Your task to perform on an android device: move a message to another label in the gmail app Image 0: 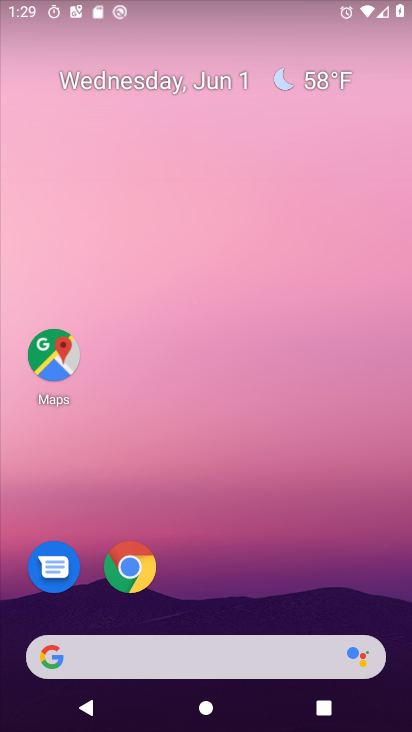
Step 0: drag from (227, 486) to (343, 115)
Your task to perform on an android device: move a message to another label in the gmail app Image 1: 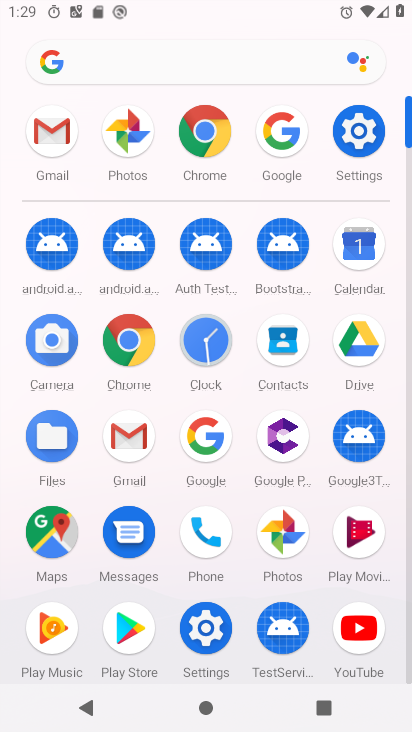
Step 1: click (132, 447)
Your task to perform on an android device: move a message to another label in the gmail app Image 2: 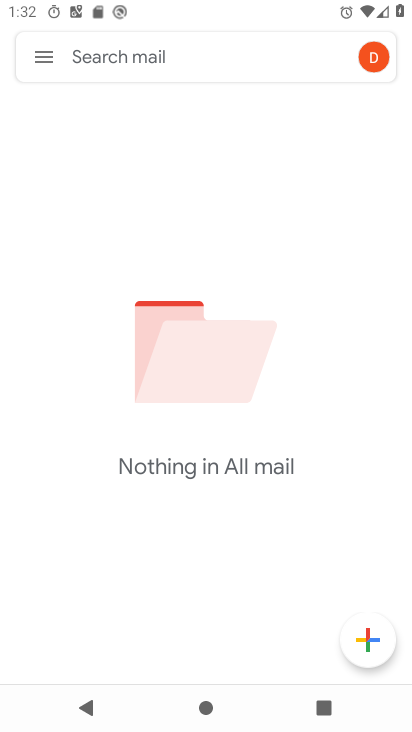
Step 2: task complete